Your task to perform on an android device: open sync settings in chrome Image 0: 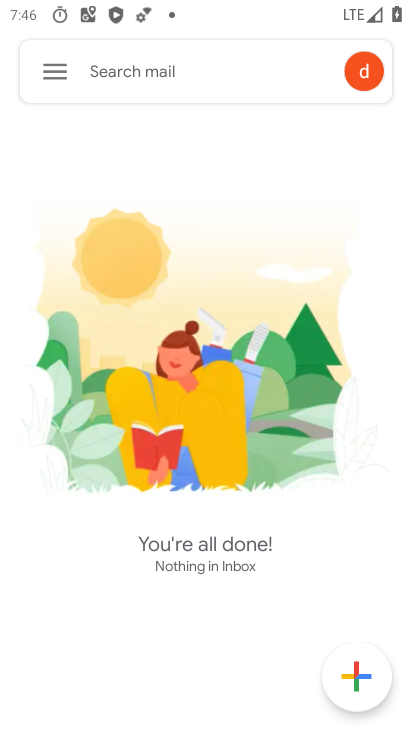
Step 0: press home button
Your task to perform on an android device: open sync settings in chrome Image 1: 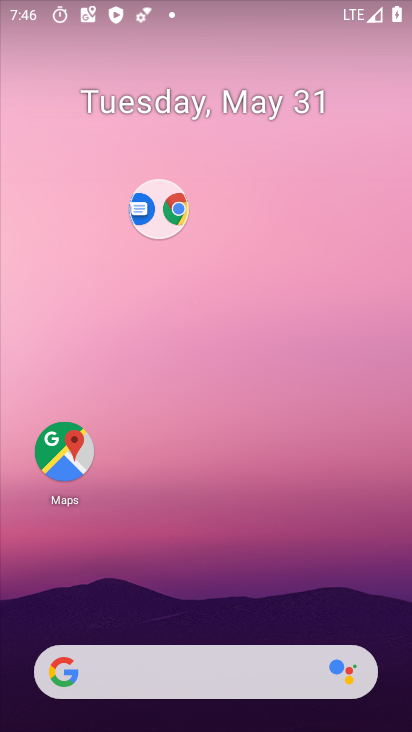
Step 1: drag from (227, 613) to (152, 32)
Your task to perform on an android device: open sync settings in chrome Image 2: 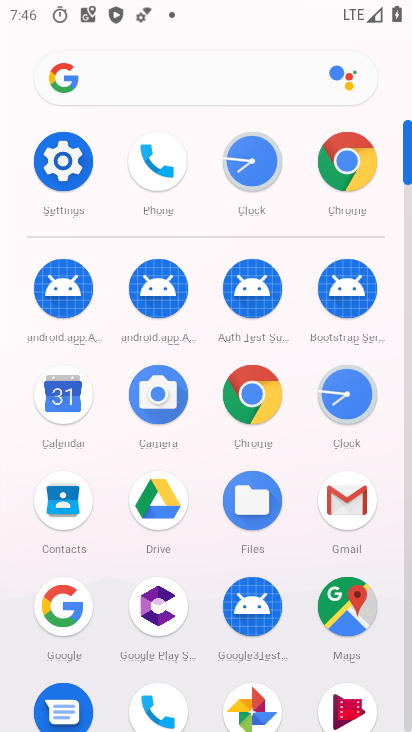
Step 2: click (350, 165)
Your task to perform on an android device: open sync settings in chrome Image 3: 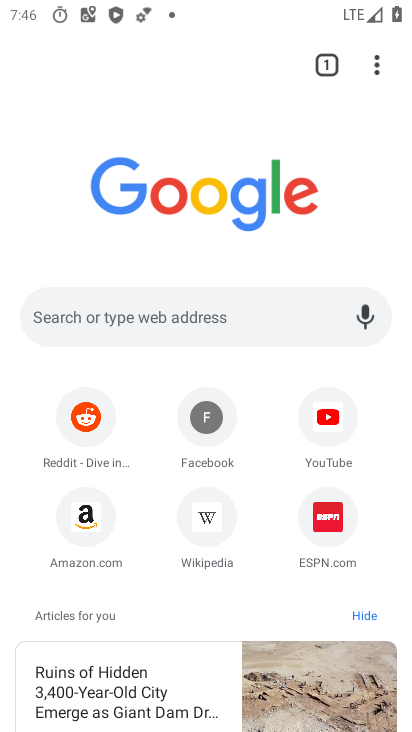
Step 3: click (377, 66)
Your task to perform on an android device: open sync settings in chrome Image 4: 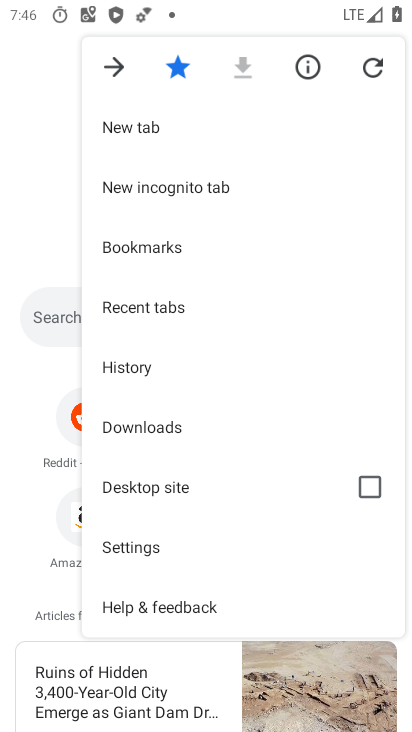
Step 4: click (128, 553)
Your task to perform on an android device: open sync settings in chrome Image 5: 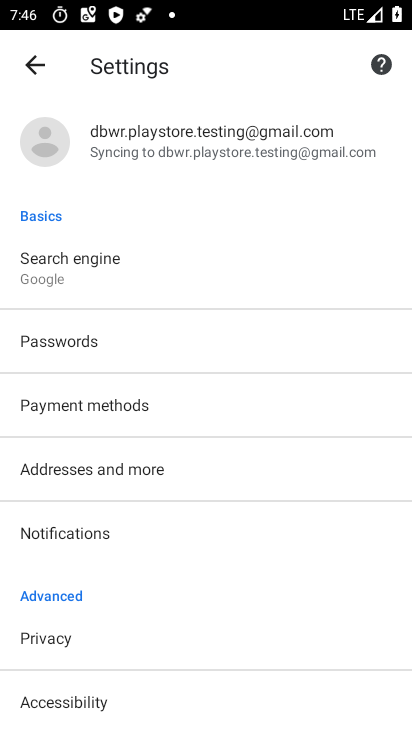
Step 5: click (168, 140)
Your task to perform on an android device: open sync settings in chrome Image 6: 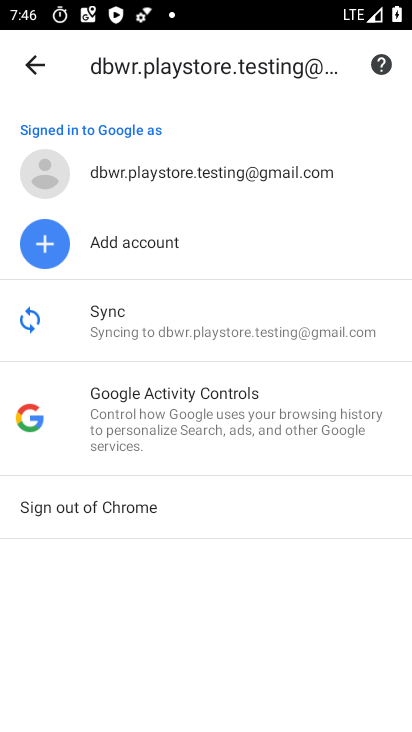
Step 6: click (119, 331)
Your task to perform on an android device: open sync settings in chrome Image 7: 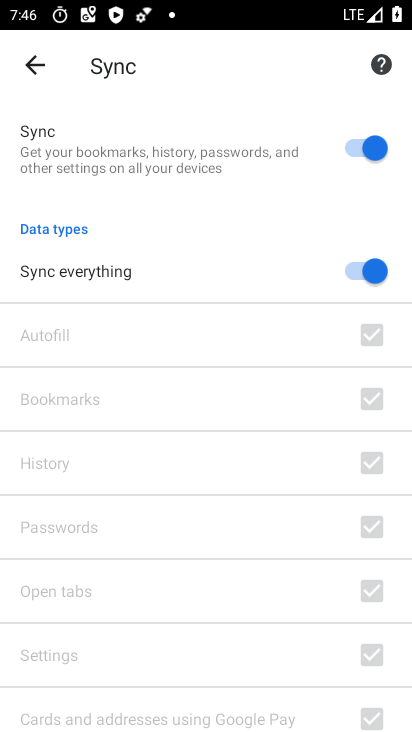
Step 7: task complete